Your task to perform on an android device: turn on notifications settings in the gmail app Image 0: 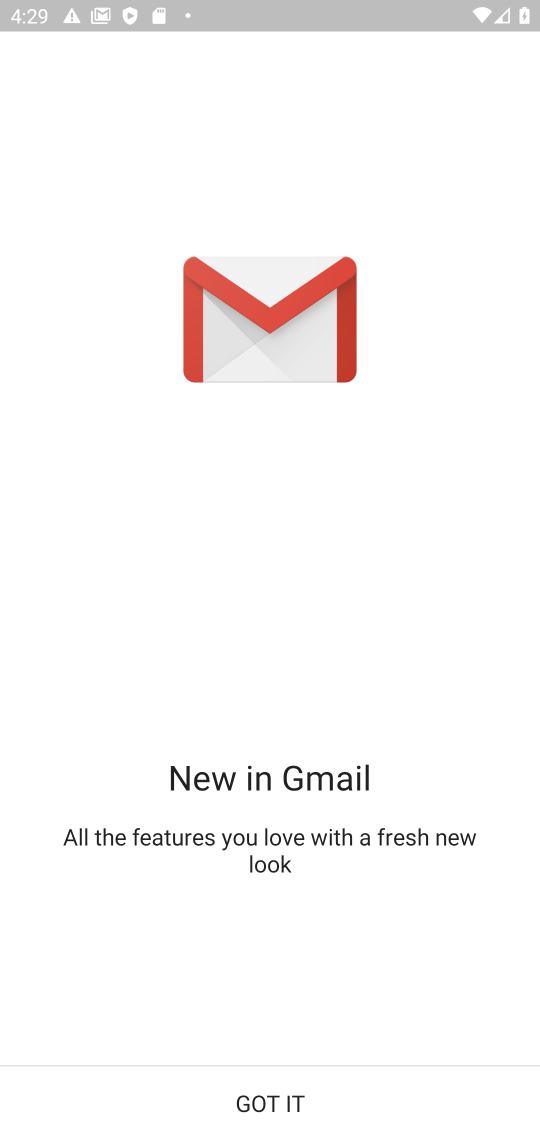
Step 0: click (298, 1107)
Your task to perform on an android device: turn on notifications settings in the gmail app Image 1: 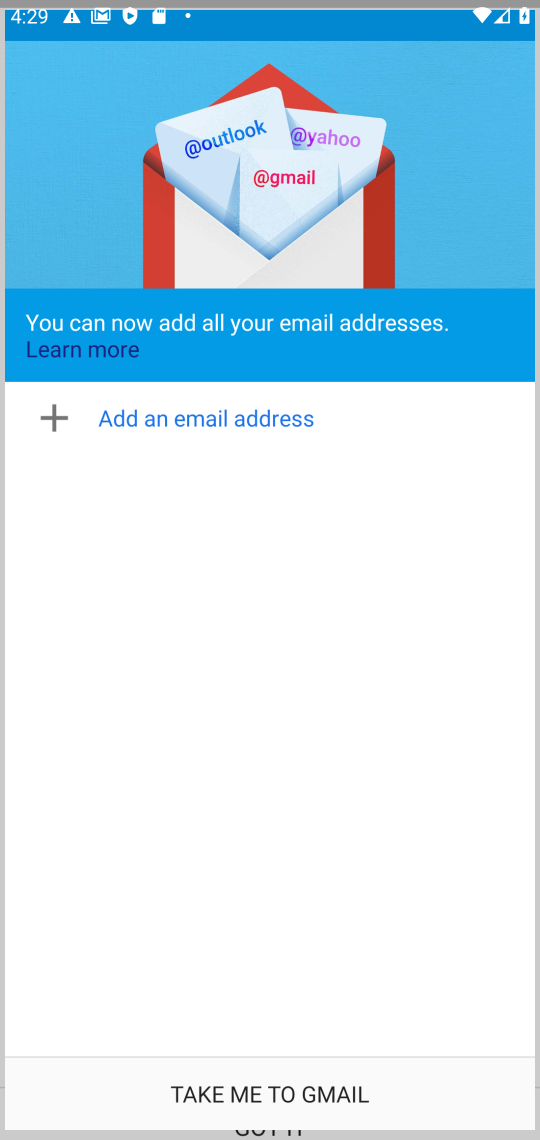
Step 1: click (298, 1107)
Your task to perform on an android device: turn on notifications settings in the gmail app Image 2: 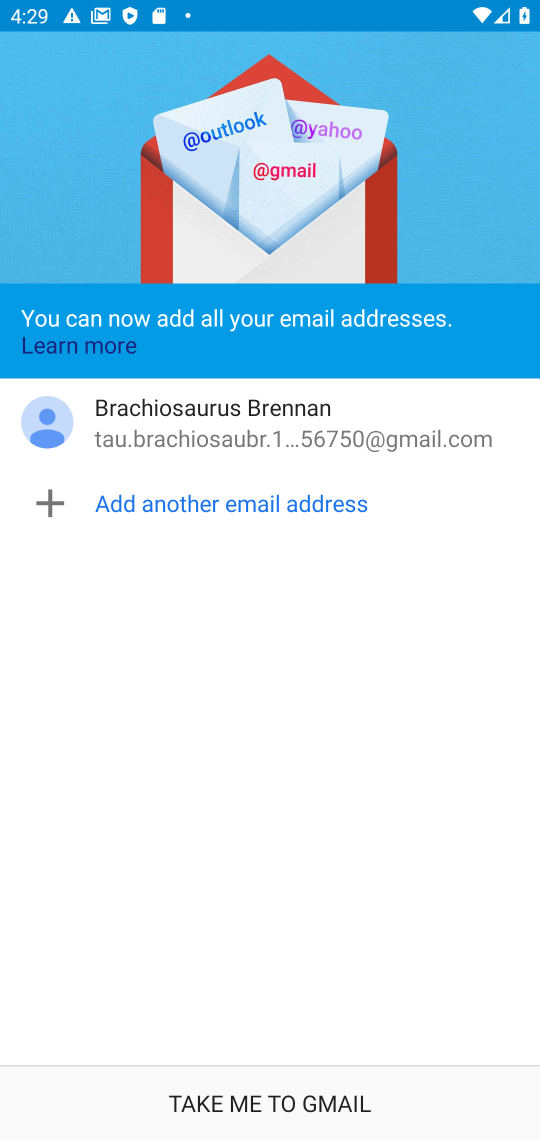
Step 2: click (298, 1107)
Your task to perform on an android device: turn on notifications settings in the gmail app Image 3: 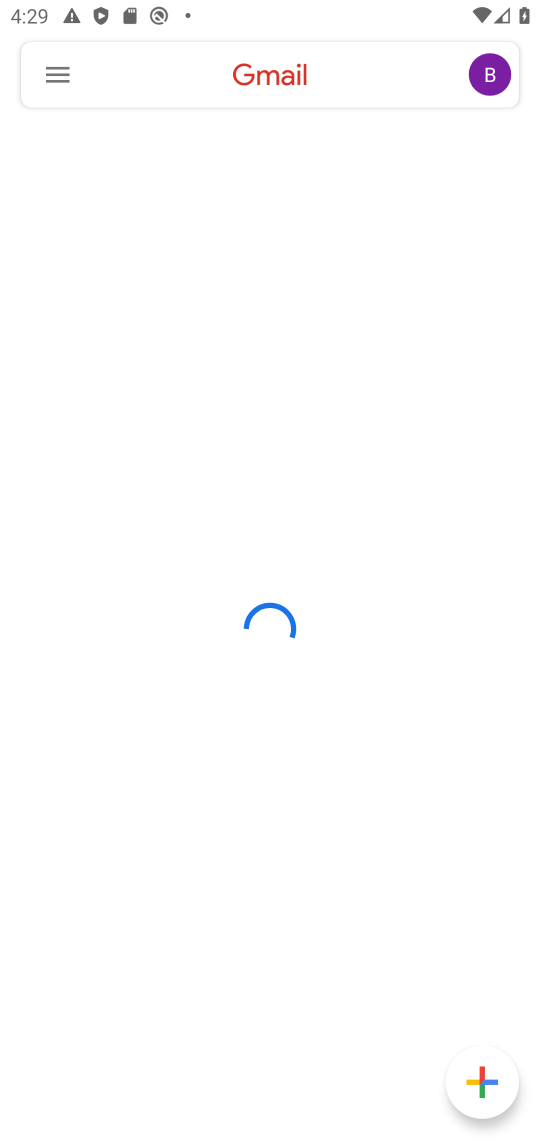
Step 3: press home button
Your task to perform on an android device: turn on notifications settings in the gmail app Image 4: 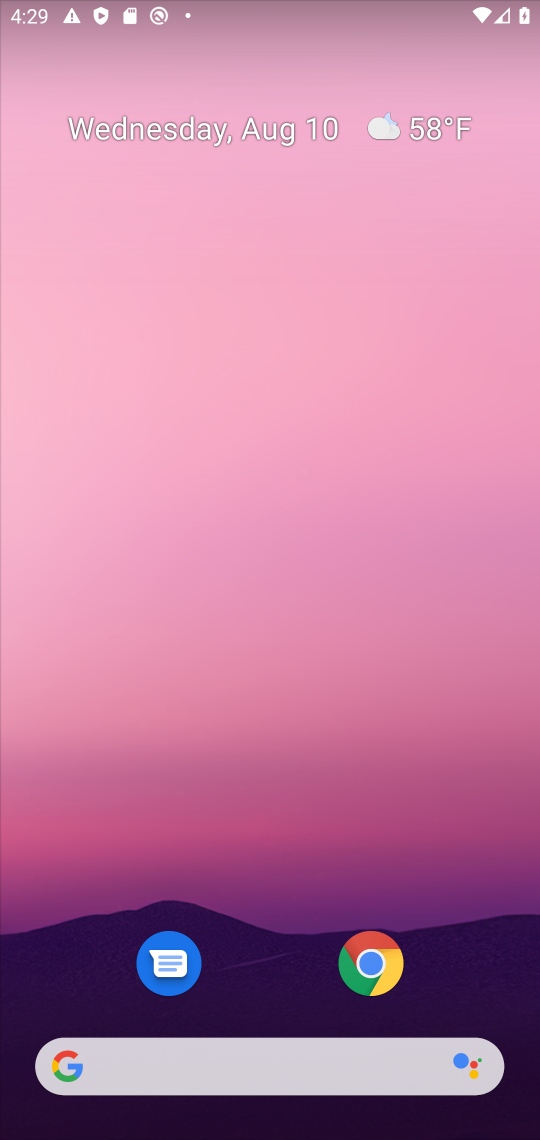
Step 4: drag from (261, 955) to (388, 98)
Your task to perform on an android device: turn on notifications settings in the gmail app Image 5: 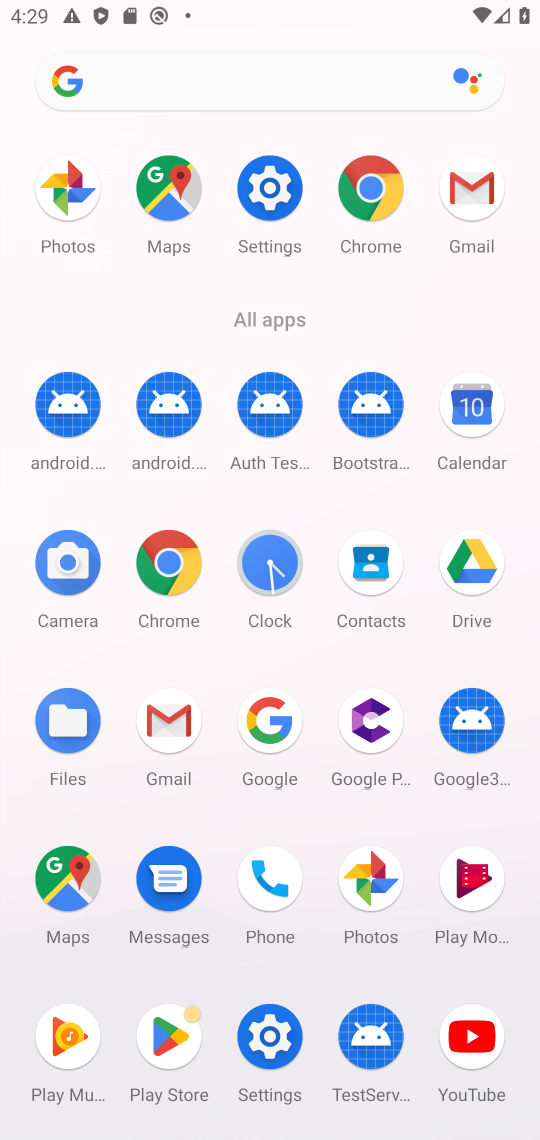
Step 5: click (178, 707)
Your task to perform on an android device: turn on notifications settings in the gmail app Image 6: 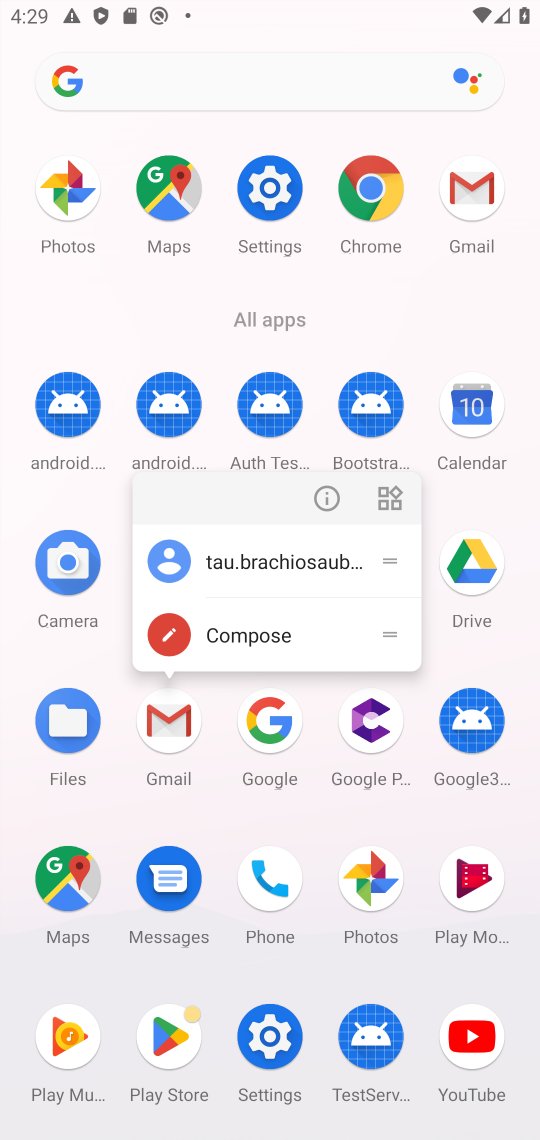
Step 6: click (329, 501)
Your task to perform on an android device: turn on notifications settings in the gmail app Image 7: 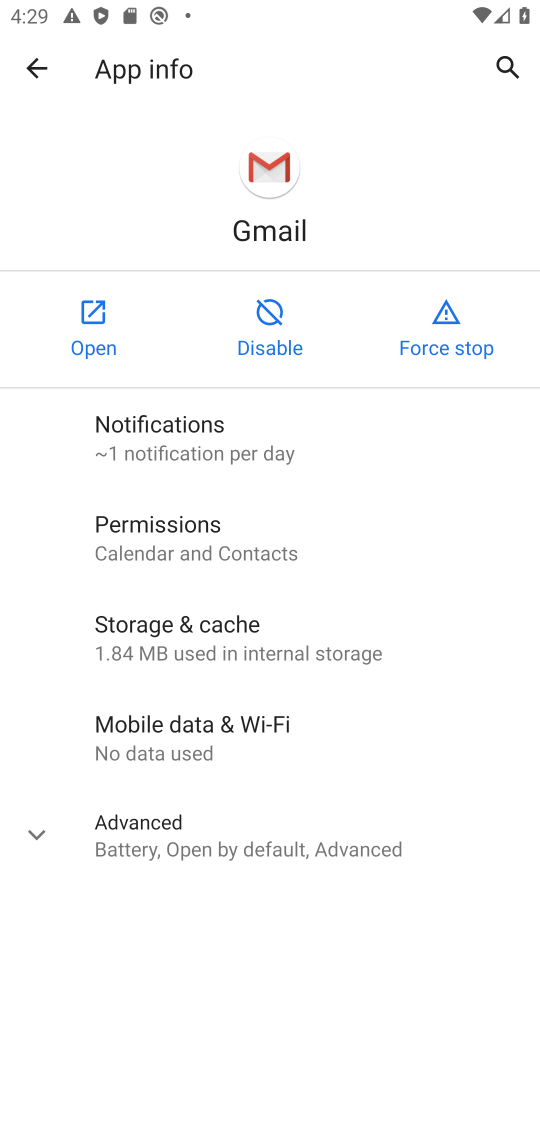
Step 7: click (332, 438)
Your task to perform on an android device: turn on notifications settings in the gmail app Image 8: 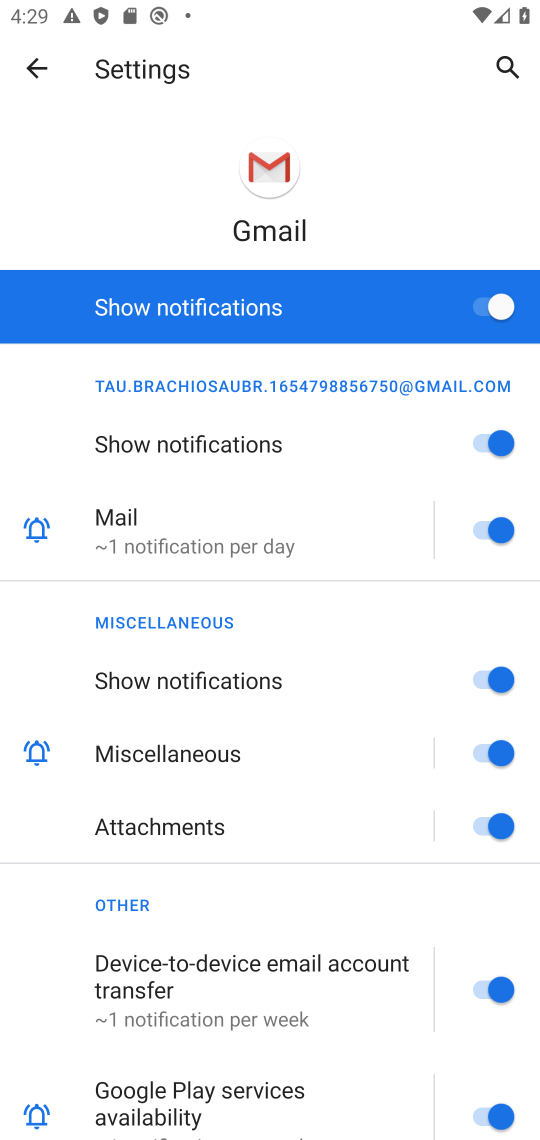
Step 8: task complete